Your task to perform on an android device: Open the stopwatch Image 0: 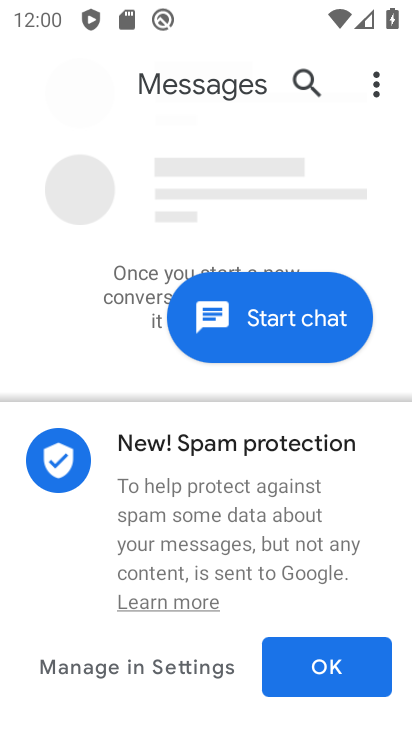
Step 0: press home button
Your task to perform on an android device: Open the stopwatch Image 1: 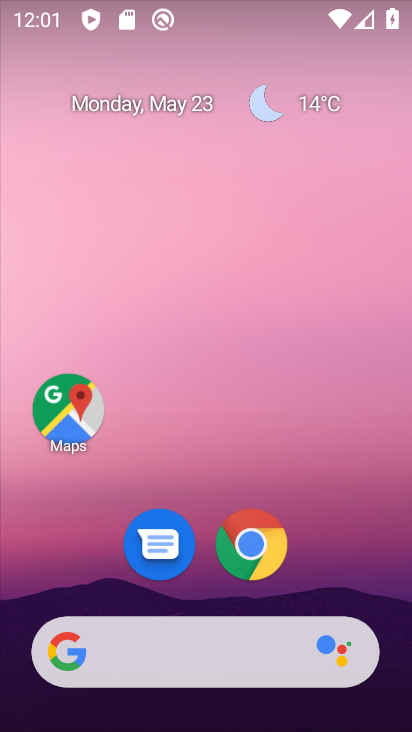
Step 1: drag from (354, 474) to (341, 35)
Your task to perform on an android device: Open the stopwatch Image 2: 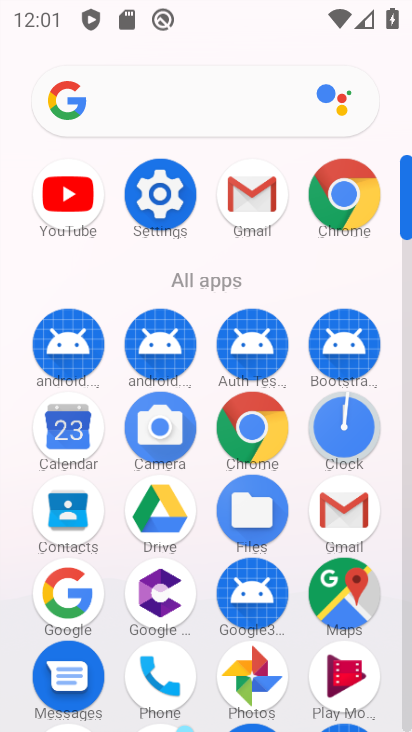
Step 2: click (349, 432)
Your task to perform on an android device: Open the stopwatch Image 3: 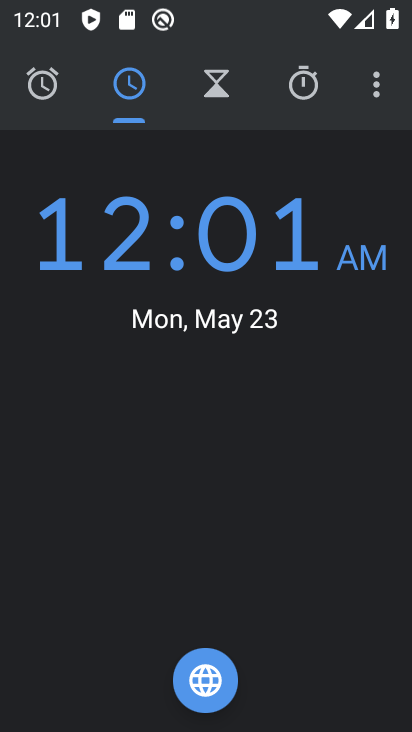
Step 3: click (293, 82)
Your task to perform on an android device: Open the stopwatch Image 4: 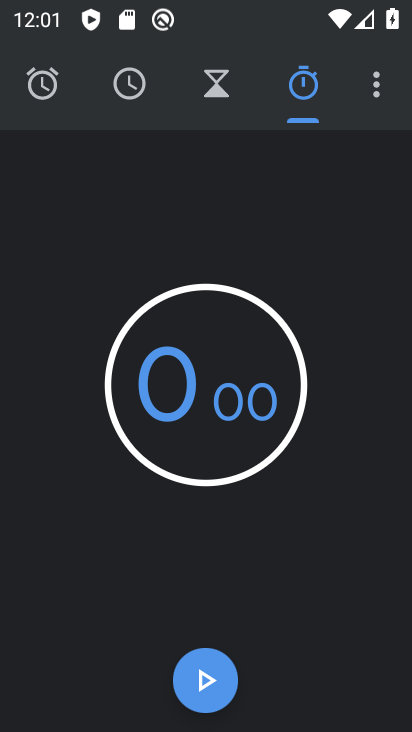
Step 4: task complete